Your task to perform on an android device: choose inbox layout in the gmail app Image 0: 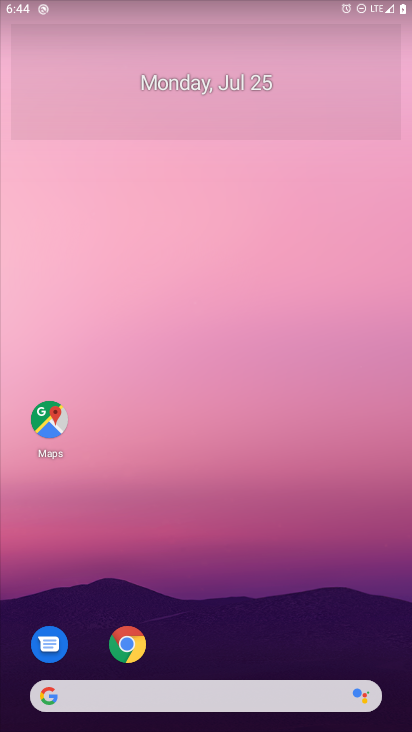
Step 0: drag from (247, 642) to (271, 189)
Your task to perform on an android device: choose inbox layout in the gmail app Image 1: 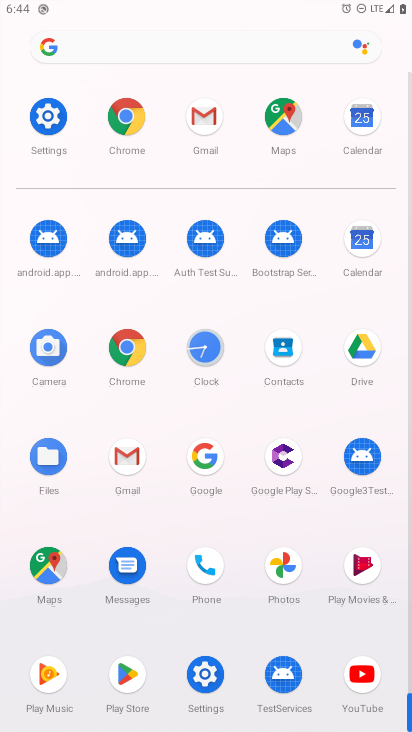
Step 1: click (213, 107)
Your task to perform on an android device: choose inbox layout in the gmail app Image 2: 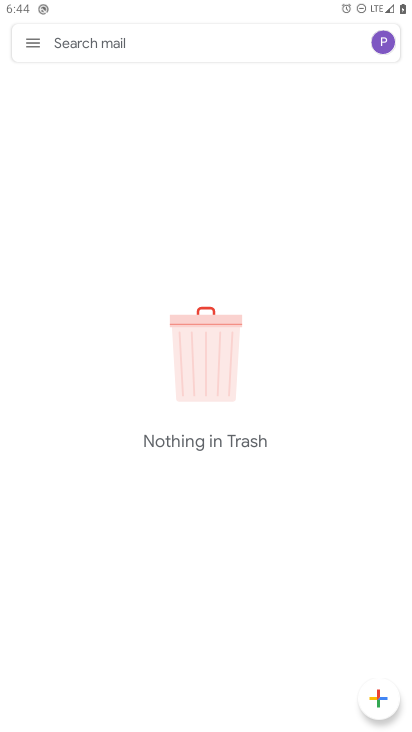
Step 2: click (33, 38)
Your task to perform on an android device: choose inbox layout in the gmail app Image 3: 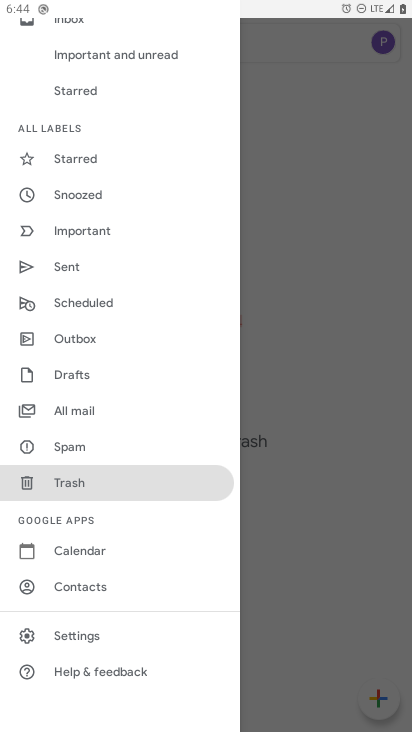
Step 3: click (84, 635)
Your task to perform on an android device: choose inbox layout in the gmail app Image 4: 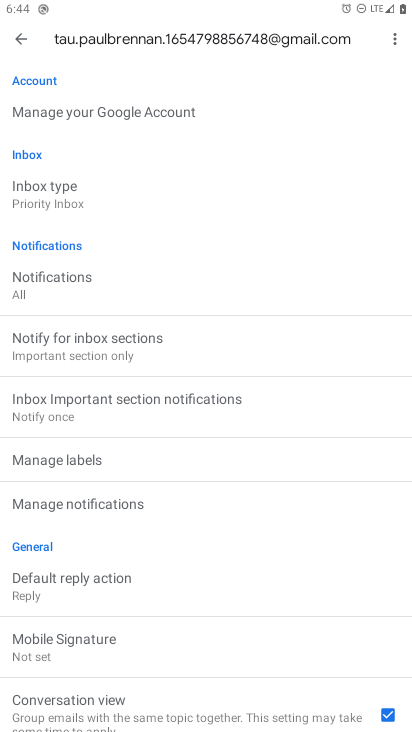
Step 4: click (52, 189)
Your task to perform on an android device: choose inbox layout in the gmail app Image 5: 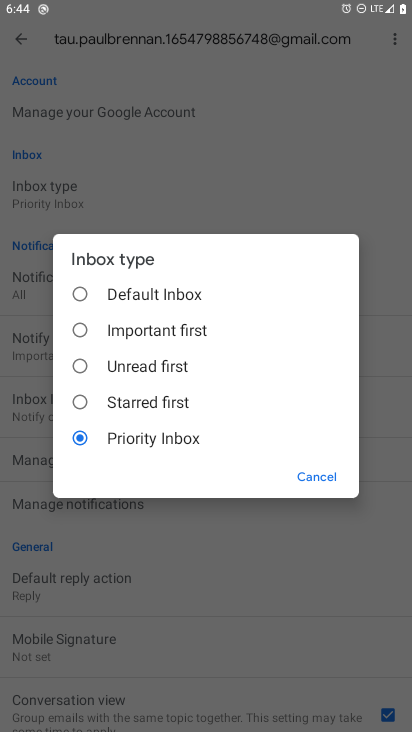
Step 5: click (74, 295)
Your task to perform on an android device: choose inbox layout in the gmail app Image 6: 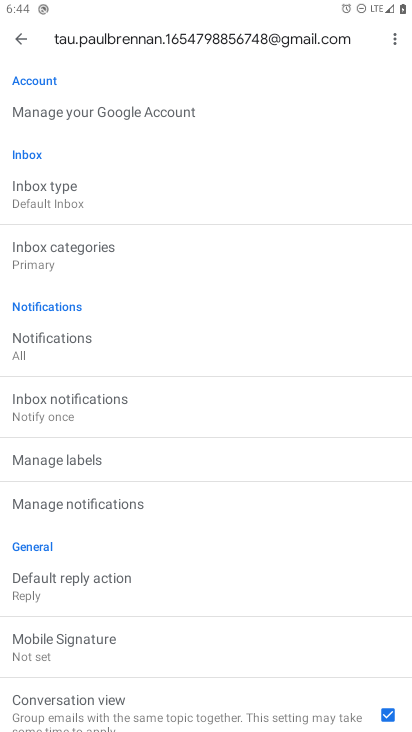
Step 6: task complete